Your task to perform on an android device: What's on my calendar tomorrow? Image 0: 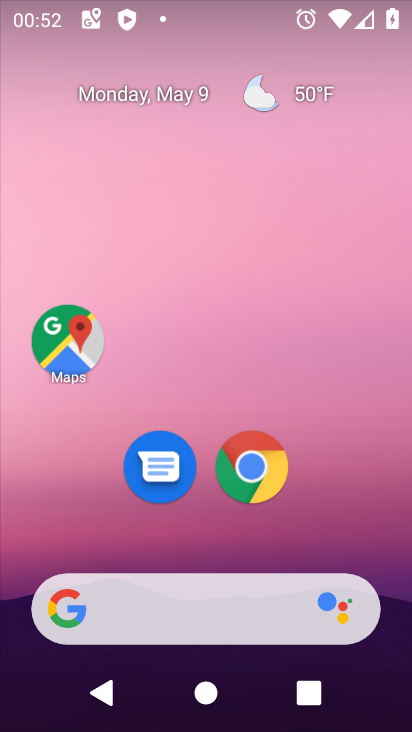
Step 0: press home button
Your task to perform on an android device: What's on my calendar tomorrow? Image 1: 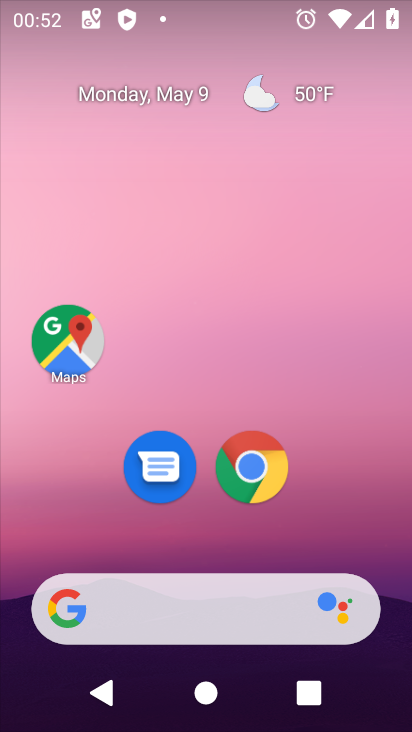
Step 1: drag from (199, 524) to (1, 349)
Your task to perform on an android device: What's on my calendar tomorrow? Image 2: 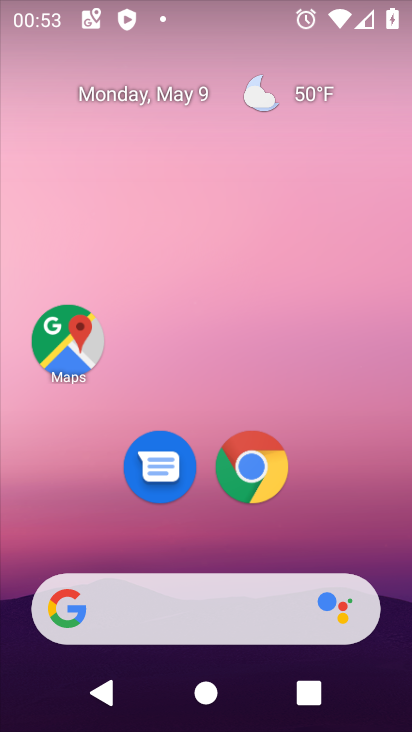
Step 2: drag from (200, 532) to (189, 37)
Your task to perform on an android device: What's on my calendar tomorrow? Image 3: 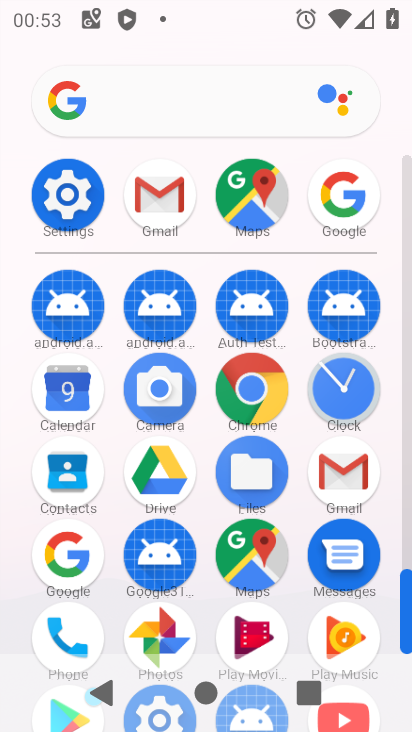
Step 3: click (68, 386)
Your task to perform on an android device: What's on my calendar tomorrow? Image 4: 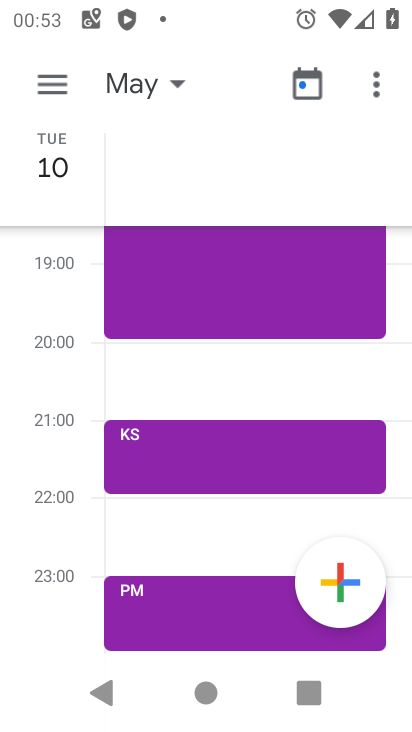
Step 4: click (129, 85)
Your task to perform on an android device: What's on my calendar tomorrow? Image 5: 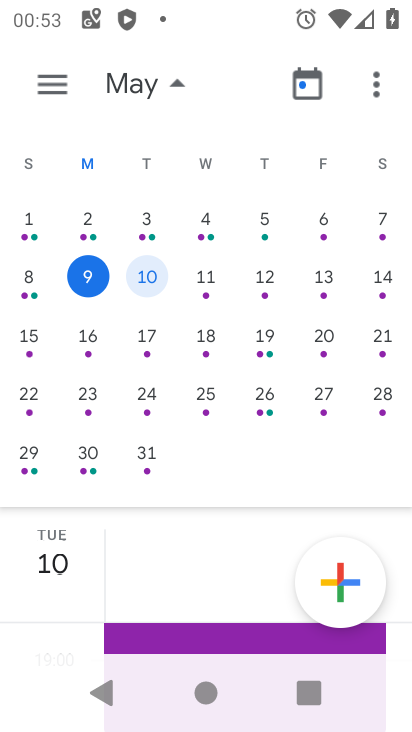
Step 5: click (150, 276)
Your task to perform on an android device: What's on my calendar tomorrow? Image 6: 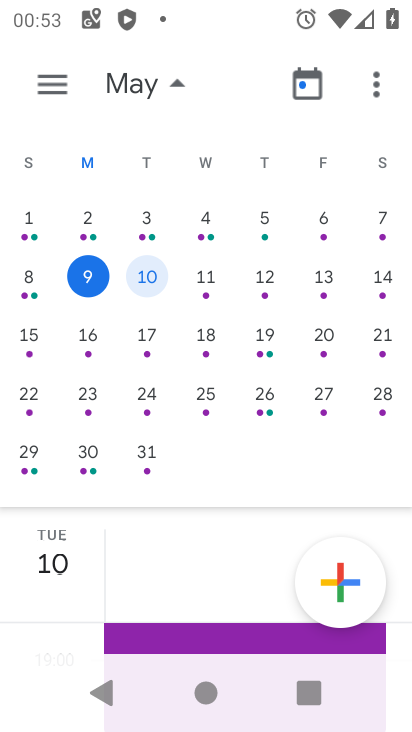
Step 6: click (148, 275)
Your task to perform on an android device: What's on my calendar tomorrow? Image 7: 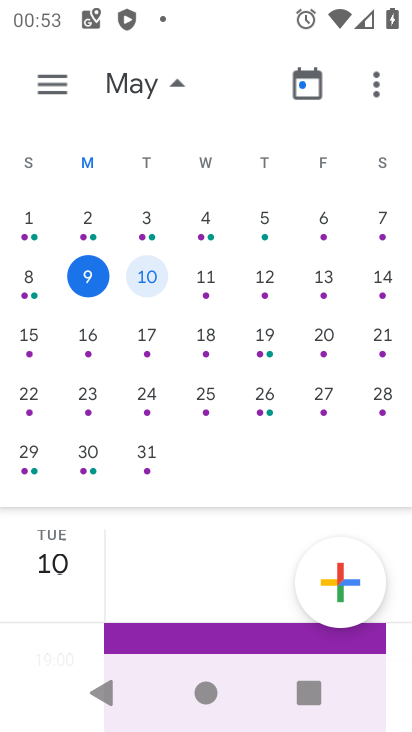
Step 7: task complete